Your task to perform on an android device: check data usage Image 0: 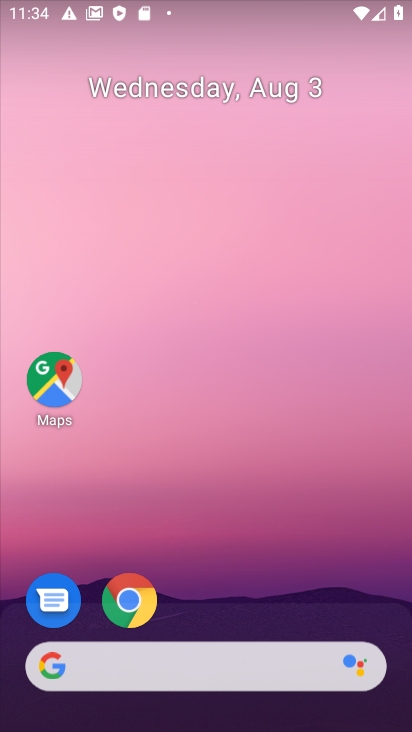
Step 0: press home button
Your task to perform on an android device: check data usage Image 1: 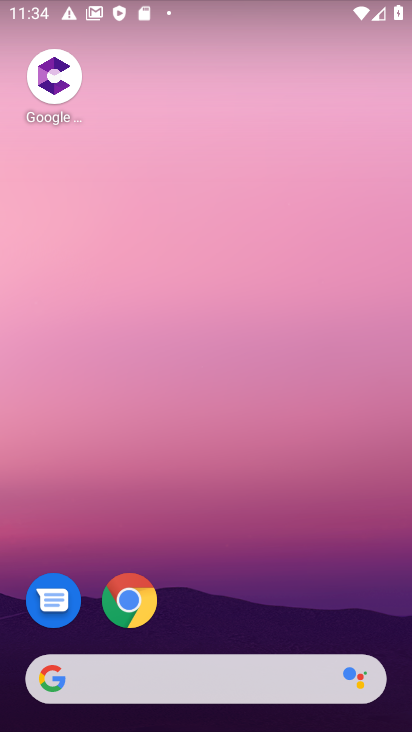
Step 1: drag from (192, 626) to (296, 126)
Your task to perform on an android device: check data usage Image 2: 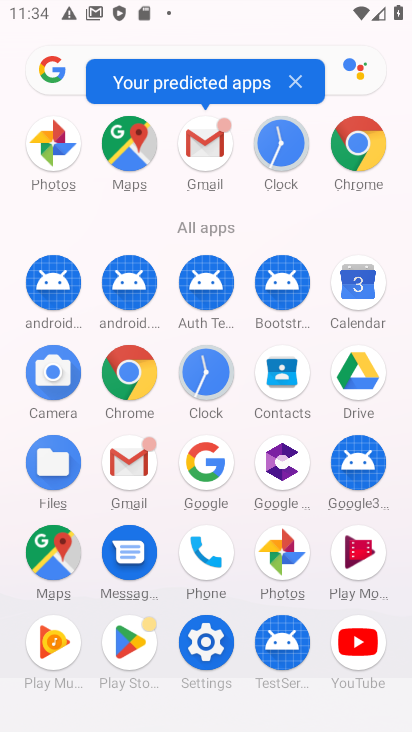
Step 2: click (202, 645)
Your task to perform on an android device: check data usage Image 3: 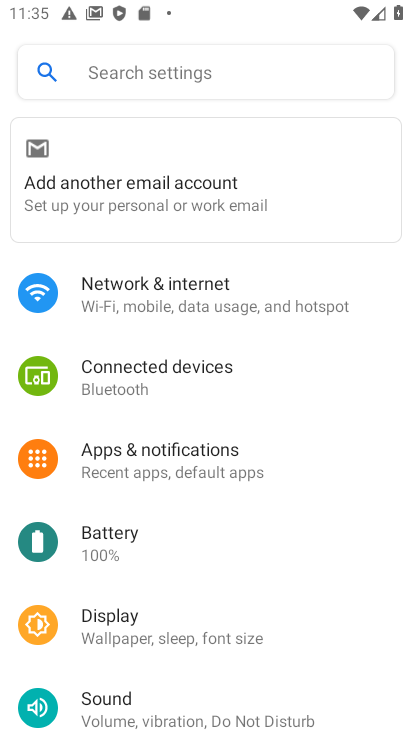
Step 3: click (164, 291)
Your task to perform on an android device: check data usage Image 4: 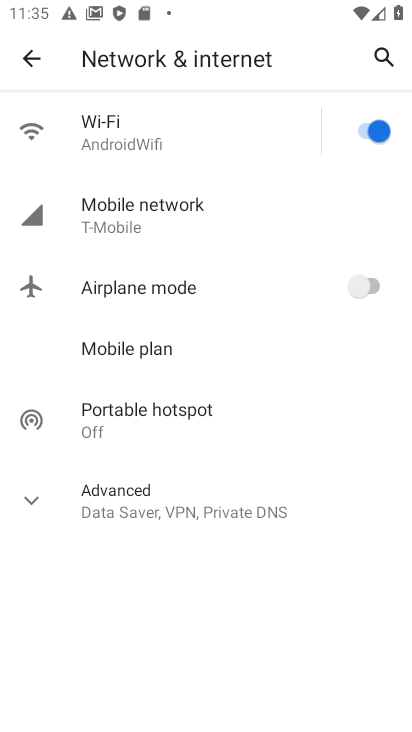
Step 4: click (139, 132)
Your task to perform on an android device: check data usage Image 5: 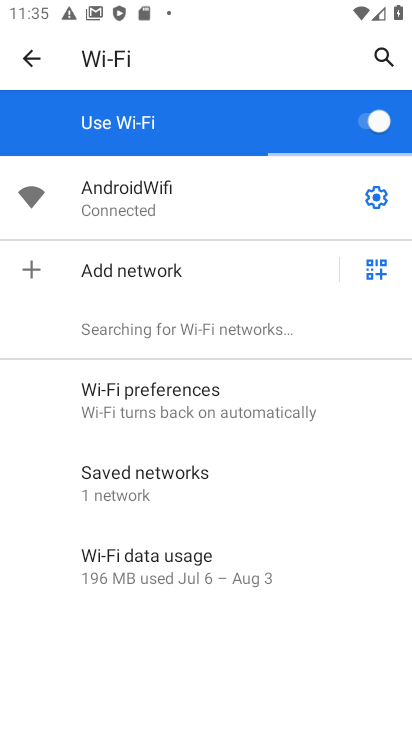
Step 5: click (169, 559)
Your task to perform on an android device: check data usage Image 6: 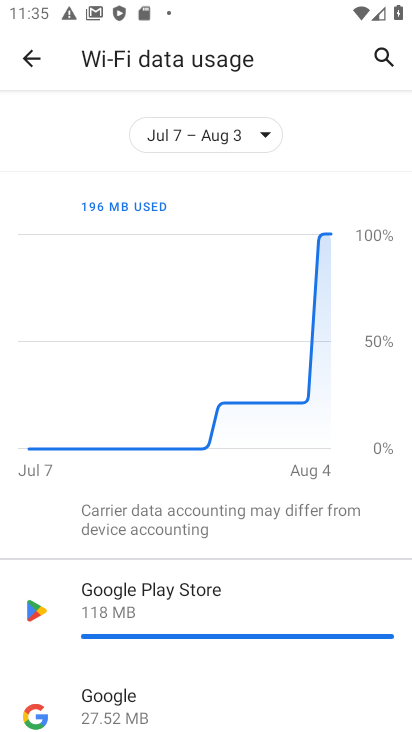
Step 6: task complete